Your task to perform on an android device: Is it going to rain tomorrow? Image 0: 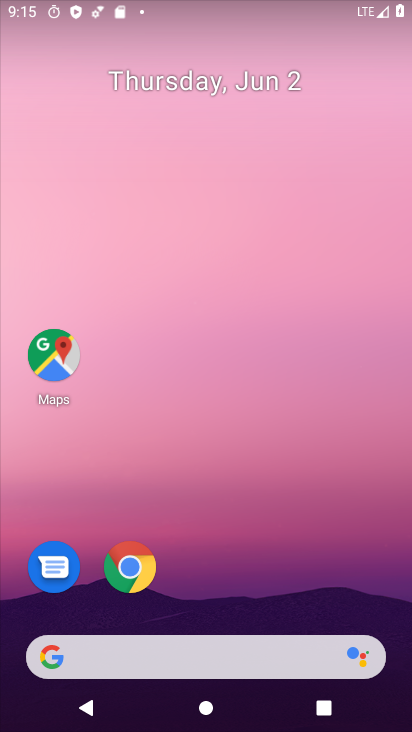
Step 0: drag from (345, 520) to (338, 116)
Your task to perform on an android device: Is it going to rain tomorrow? Image 1: 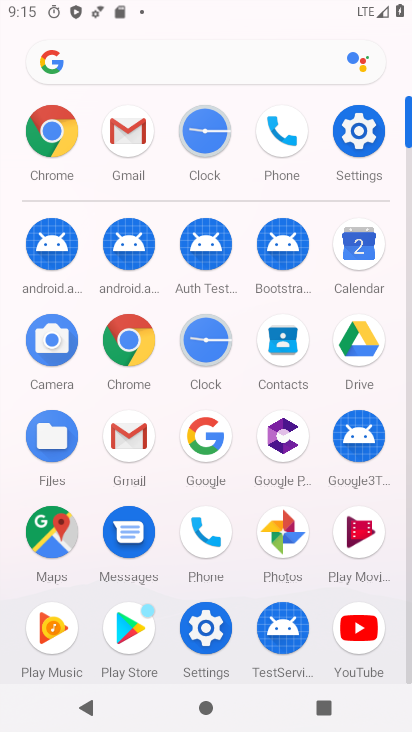
Step 1: click (139, 334)
Your task to perform on an android device: Is it going to rain tomorrow? Image 2: 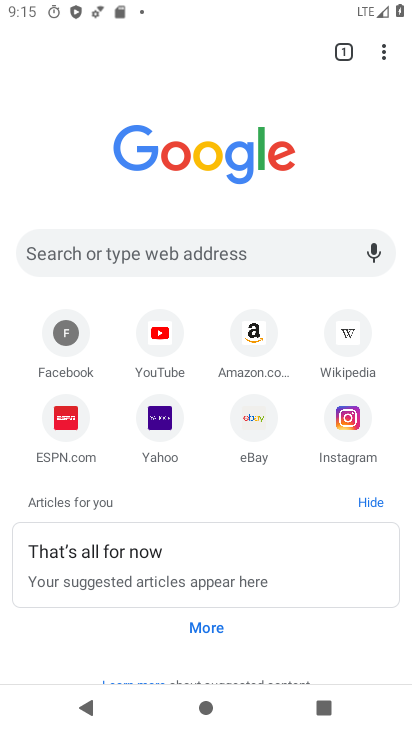
Step 2: click (187, 244)
Your task to perform on an android device: Is it going to rain tomorrow? Image 3: 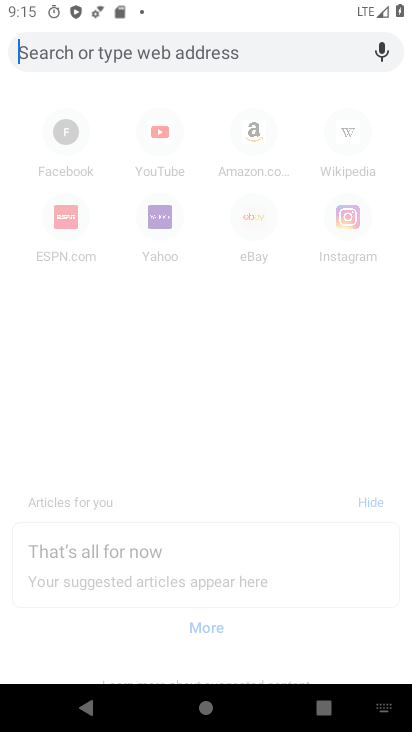
Step 3: type "is it going to rain tomorrow"
Your task to perform on an android device: Is it going to rain tomorrow? Image 4: 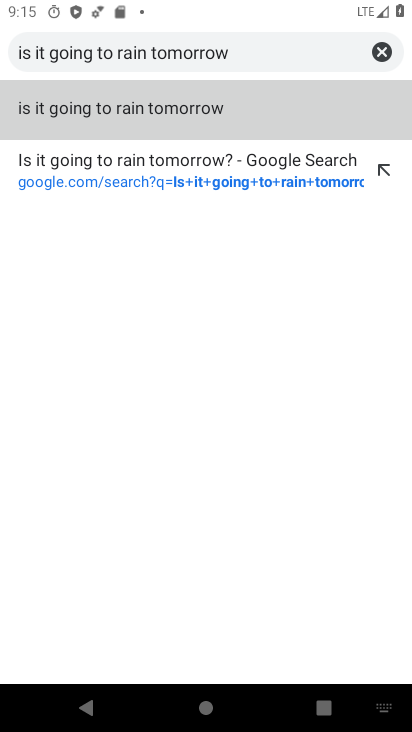
Step 4: click (250, 130)
Your task to perform on an android device: Is it going to rain tomorrow? Image 5: 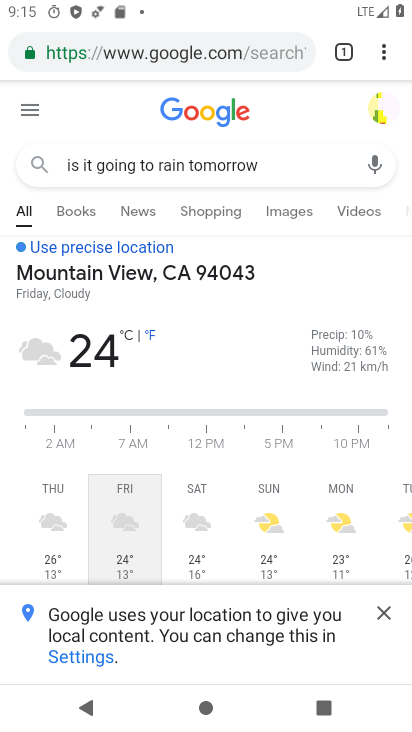
Step 5: task complete